Your task to perform on an android device: turn off notifications settings in the gmail app Image 0: 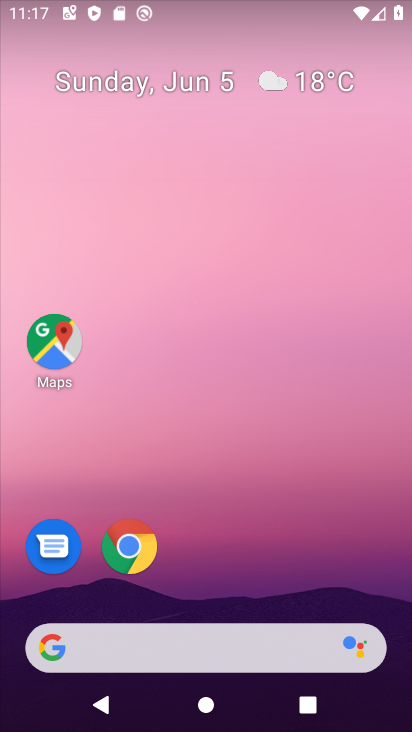
Step 0: drag from (187, 623) to (169, 349)
Your task to perform on an android device: turn off notifications settings in the gmail app Image 1: 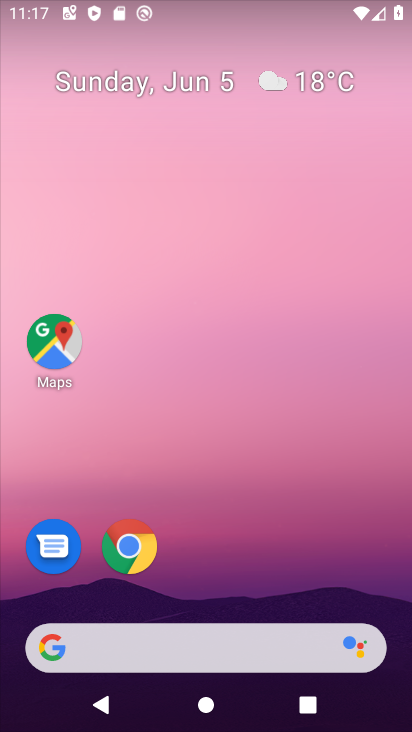
Step 1: drag from (214, 623) to (196, 148)
Your task to perform on an android device: turn off notifications settings in the gmail app Image 2: 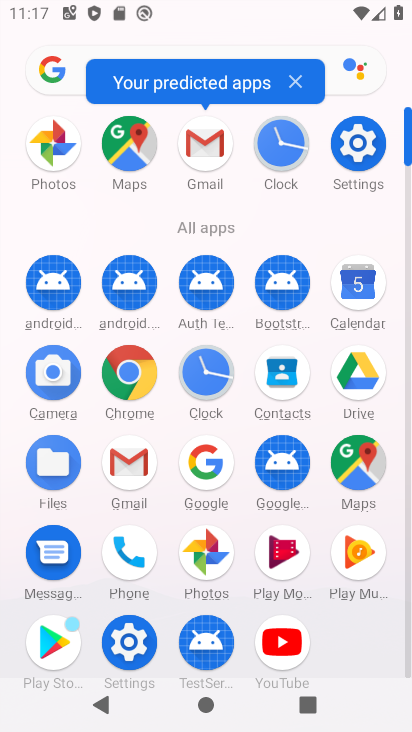
Step 2: click (196, 149)
Your task to perform on an android device: turn off notifications settings in the gmail app Image 3: 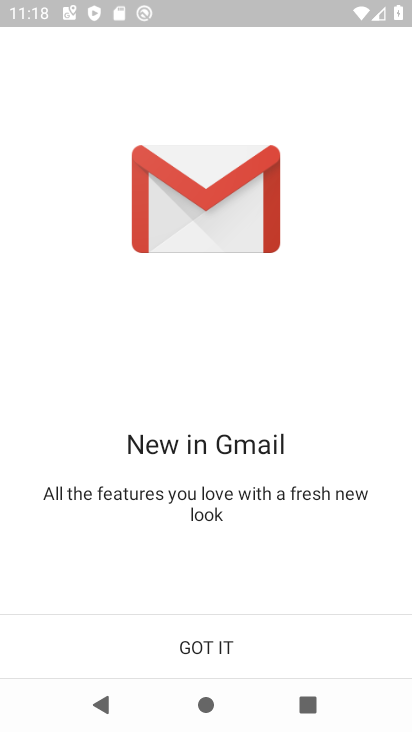
Step 3: click (189, 650)
Your task to perform on an android device: turn off notifications settings in the gmail app Image 4: 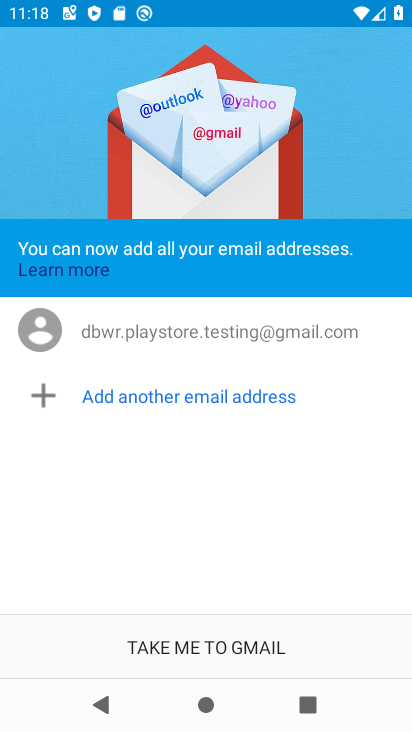
Step 4: click (189, 650)
Your task to perform on an android device: turn off notifications settings in the gmail app Image 5: 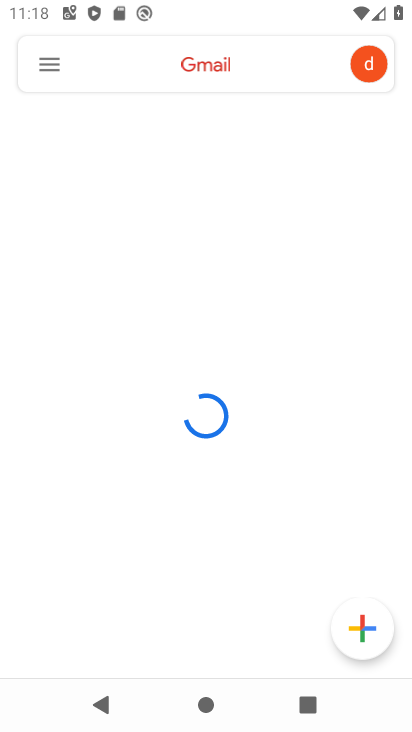
Step 5: click (56, 61)
Your task to perform on an android device: turn off notifications settings in the gmail app Image 6: 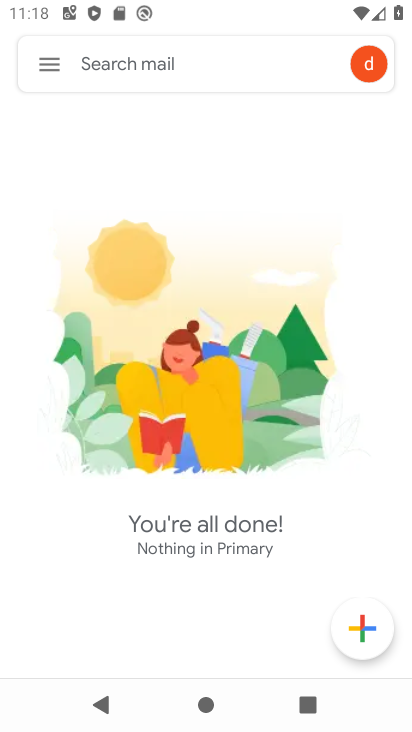
Step 6: click (48, 62)
Your task to perform on an android device: turn off notifications settings in the gmail app Image 7: 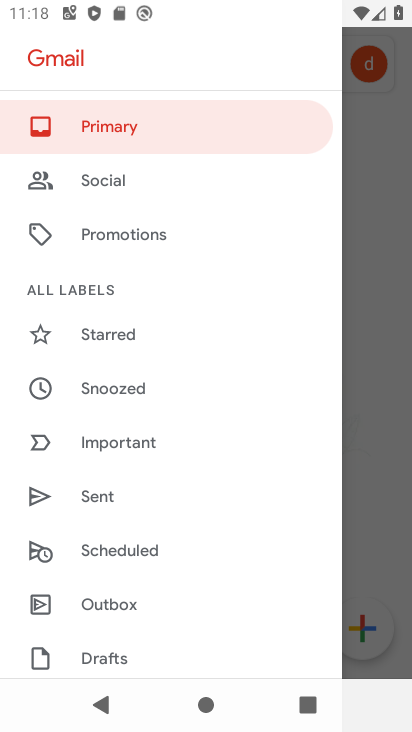
Step 7: drag from (135, 620) to (96, 228)
Your task to perform on an android device: turn off notifications settings in the gmail app Image 8: 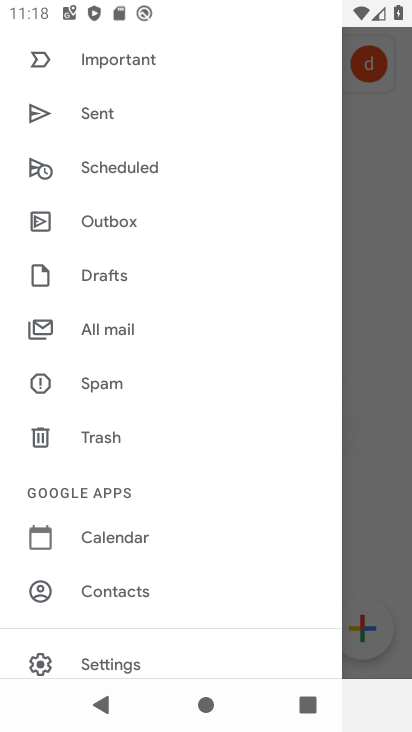
Step 8: click (96, 661)
Your task to perform on an android device: turn off notifications settings in the gmail app Image 9: 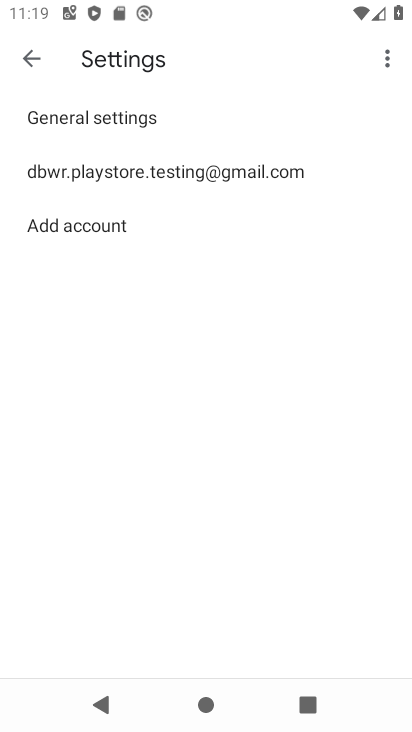
Step 9: click (97, 118)
Your task to perform on an android device: turn off notifications settings in the gmail app Image 10: 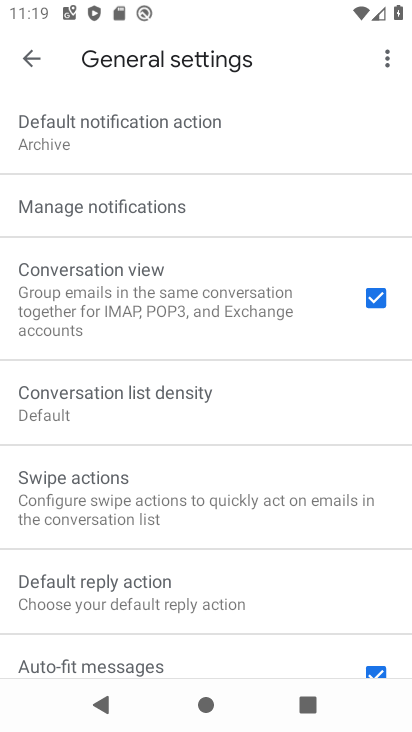
Step 10: click (105, 207)
Your task to perform on an android device: turn off notifications settings in the gmail app Image 11: 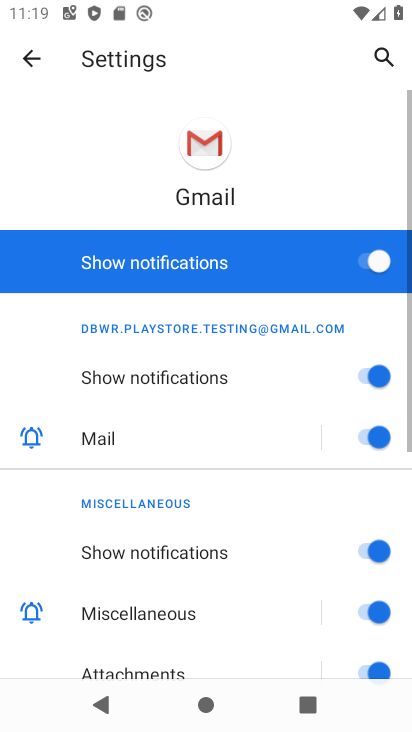
Step 11: click (349, 263)
Your task to perform on an android device: turn off notifications settings in the gmail app Image 12: 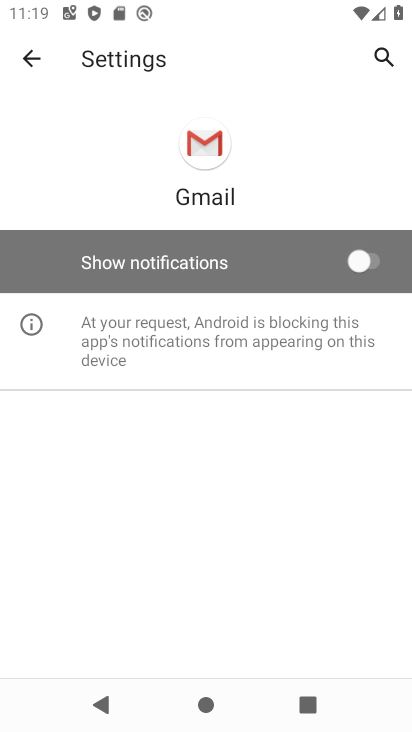
Step 12: task complete